Your task to perform on an android device: Go to Android settings Image 0: 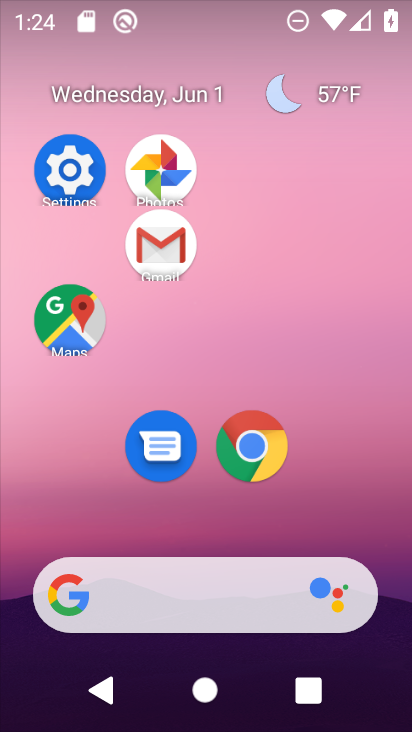
Step 0: click (80, 162)
Your task to perform on an android device: Go to Android settings Image 1: 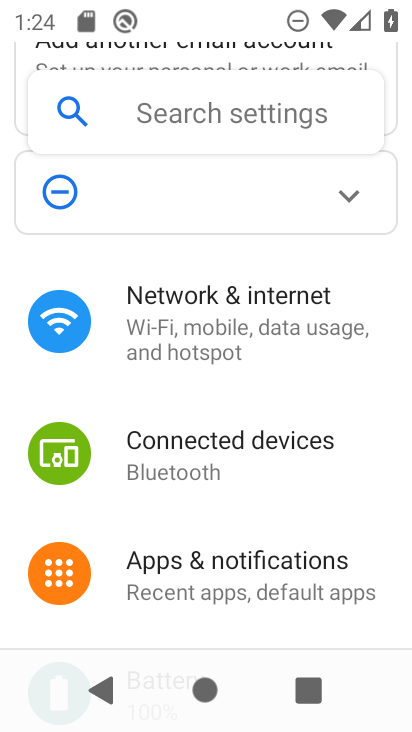
Step 1: task complete